Your task to perform on an android device: make emails show in primary in the gmail app Image 0: 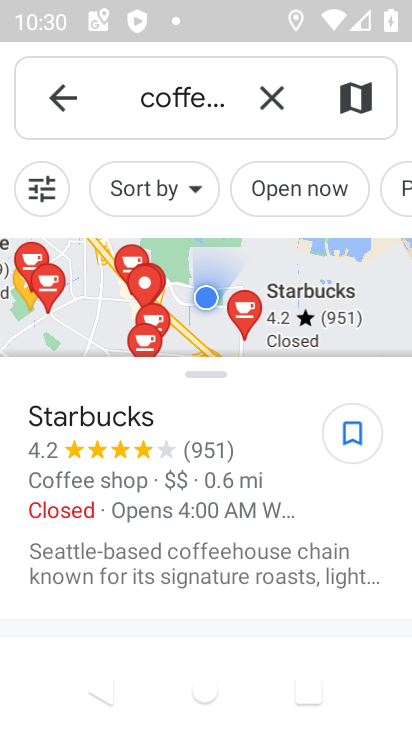
Step 0: press home button
Your task to perform on an android device: make emails show in primary in the gmail app Image 1: 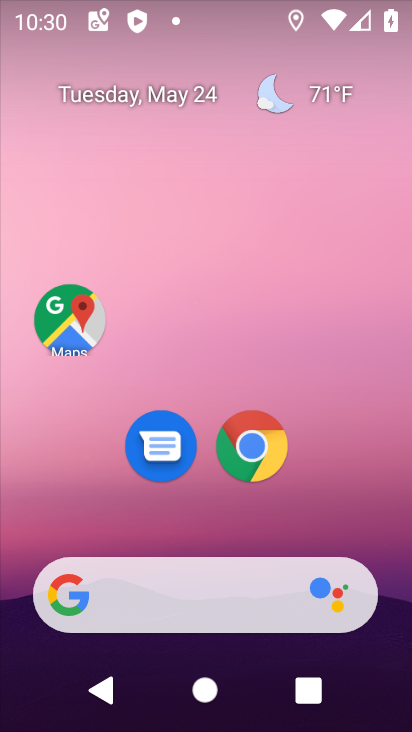
Step 1: drag from (331, 519) to (243, 144)
Your task to perform on an android device: make emails show in primary in the gmail app Image 2: 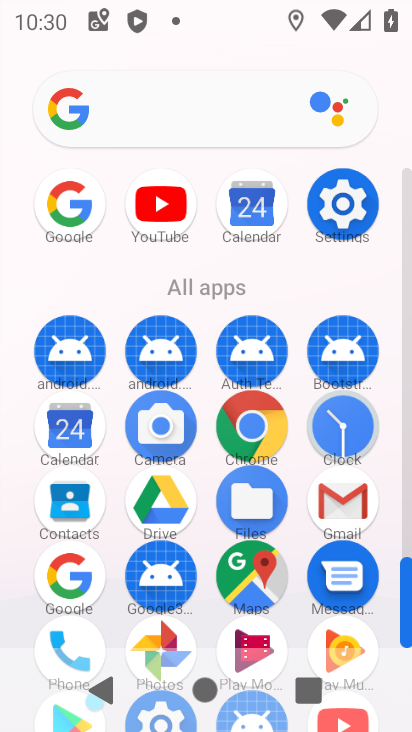
Step 2: click (341, 500)
Your task to perform on an android device: make emails show in primary in the gmail app Image 3: 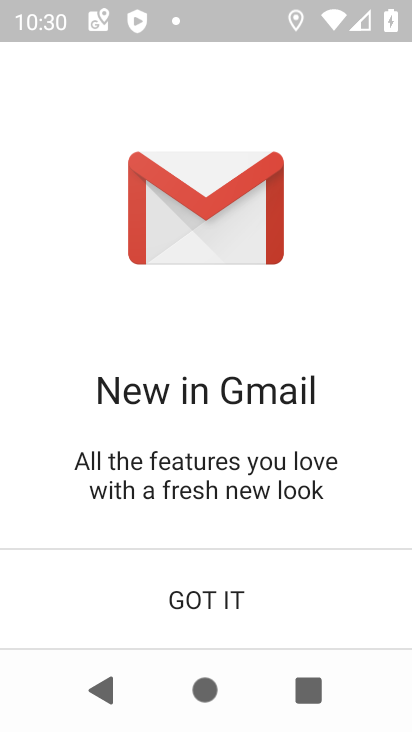
Step 3: click (201, 593)
Your task to perform on an android device: make emails show in primary in the gmail app Image 4: 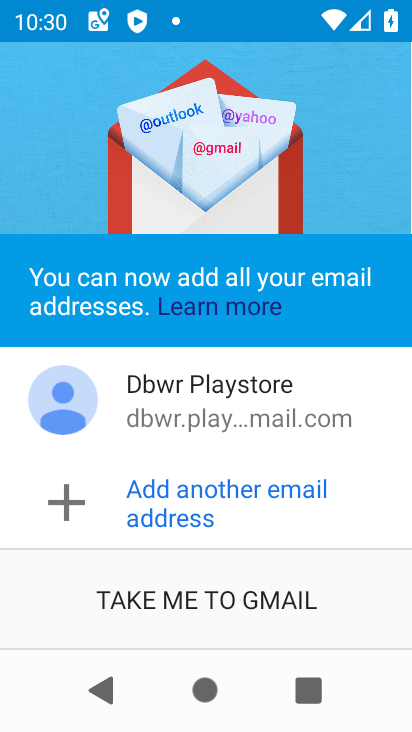
Step 4: click (201, 593)
Your task to perform on an android device: make emails show in primary in the gmail app Image 5: 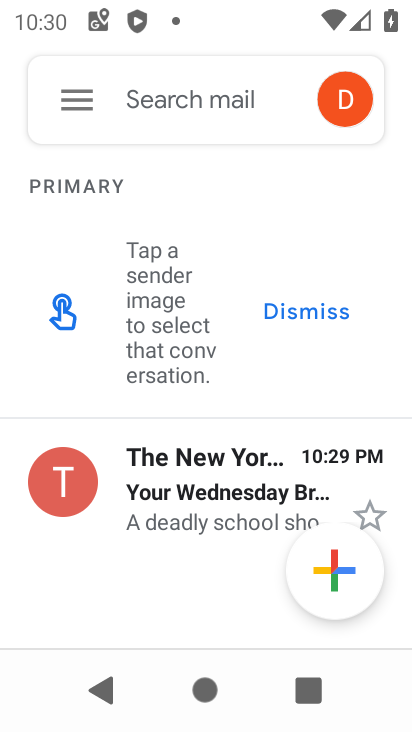
Step 5: click (86, 106)
Your task to perform on an android device: make emails show in primary in the gmail app Image 6: 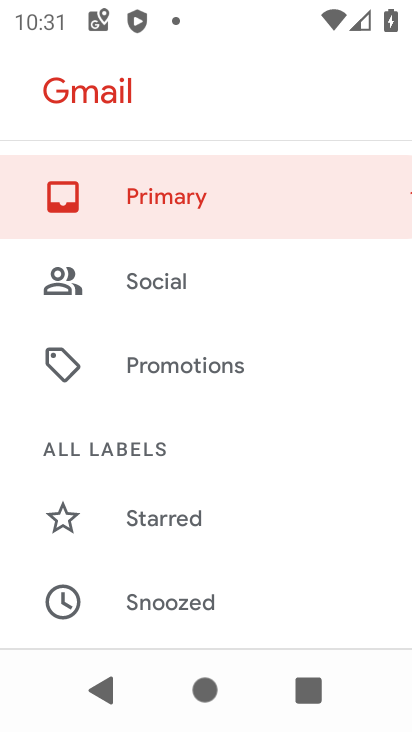
Step 6: click (169, 197)
Your task to perform on an android device: make emails show in primary in the gmail app Image 7: 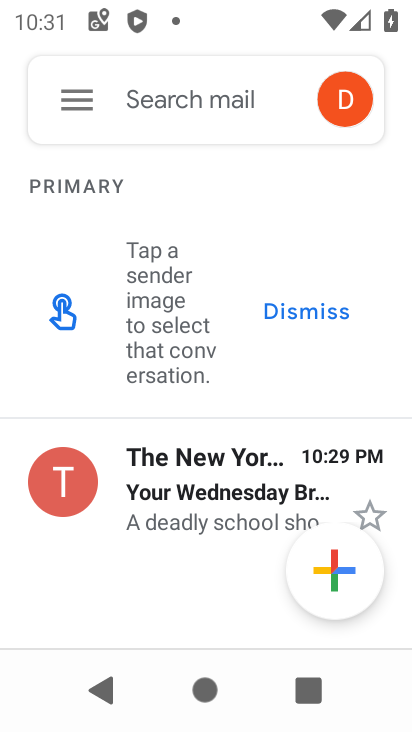
Step 7: task complete